Your task to perform on an android device: manage bookmarks in the chrome app Image 0: 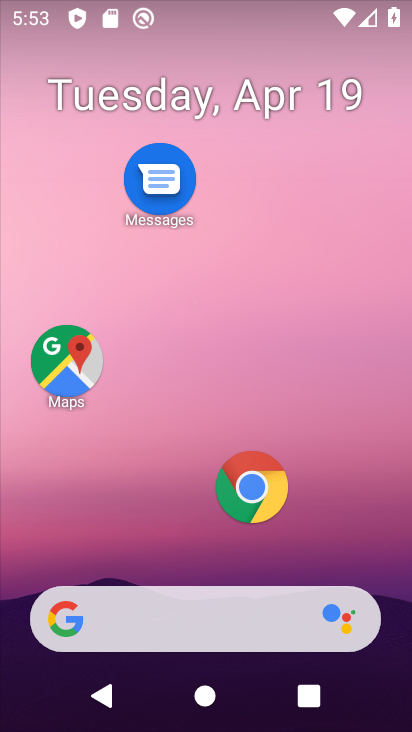
Step 0: drag from (194, 559) to (216, 86)
Your task to perform on an android device: manage bookmarks in the chrome app Image 1: 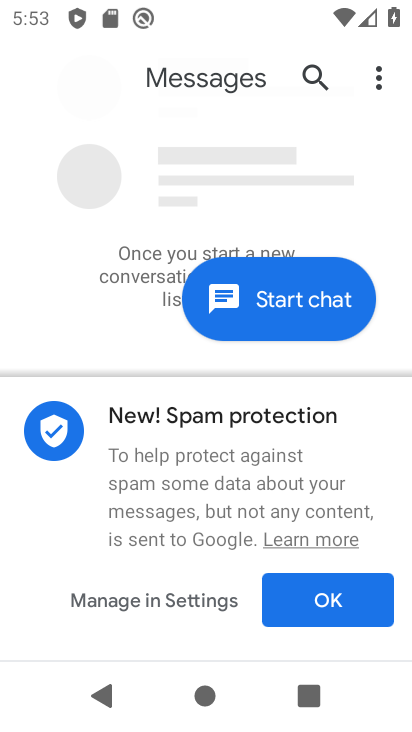
Step 1: press home button
Your task to perform on an android device: manage bookmarks in the chrome app Image 2: 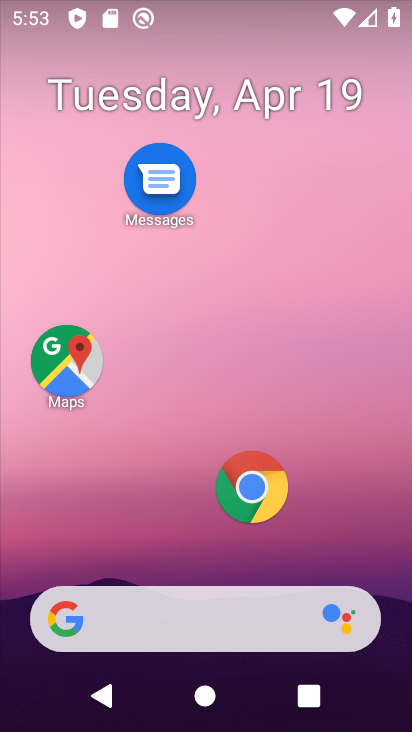
Step 2: click (248, 477)
Your task to perform on an android device: manage bookmarks in the chrome app Image 3: 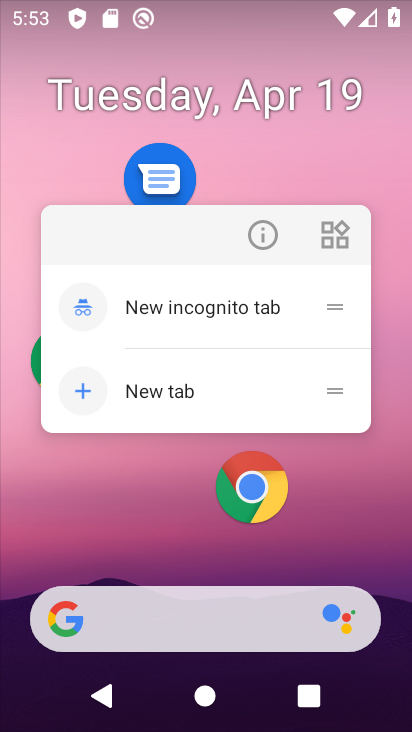
Step 3: click (250, 479)
Your task to perform on an android device: manage bookmarks in the chrome app Image 4: 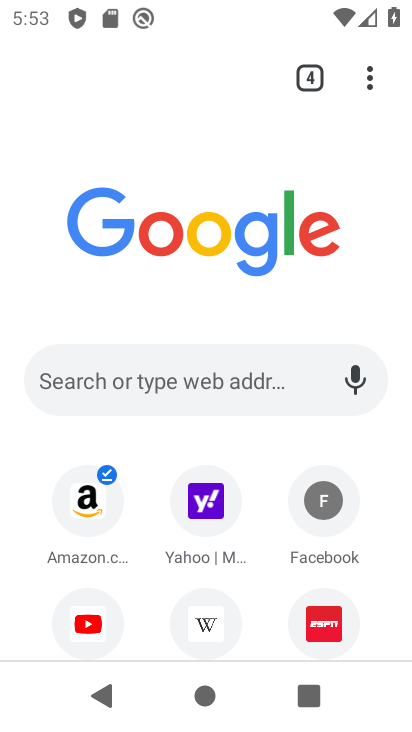
Step 4: click (371, 71)
Your task to perform on an android device: manage bookmarks in the chrome app Image 5: 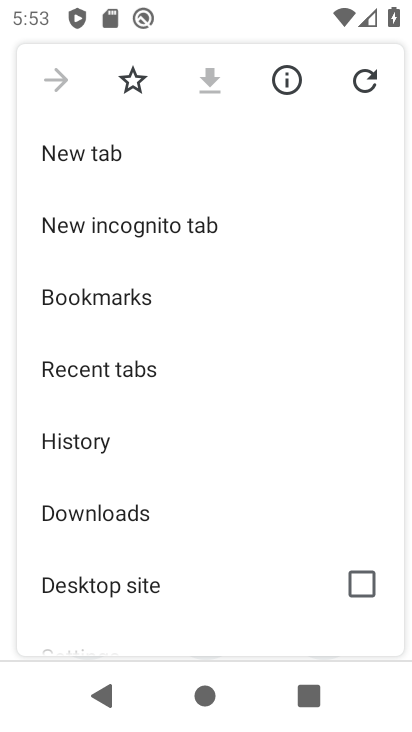
Step 5: click (161, 295)
Your task to perform on an android device: manage bookmarks in the chrome app Image 6: 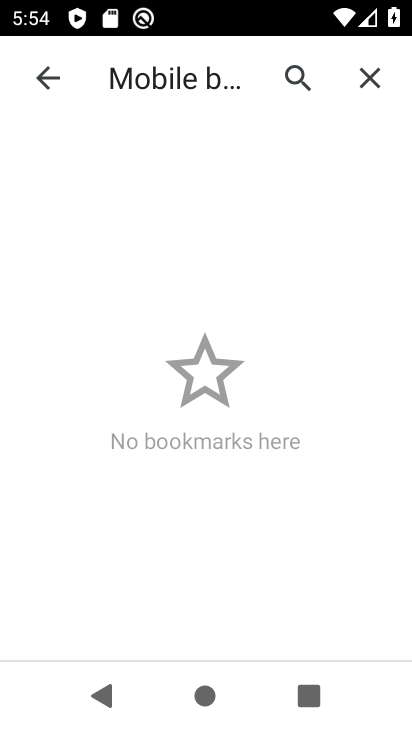
Step 6: task complete